Your task to perform on an android device: Toggle the flashlight Image 0: 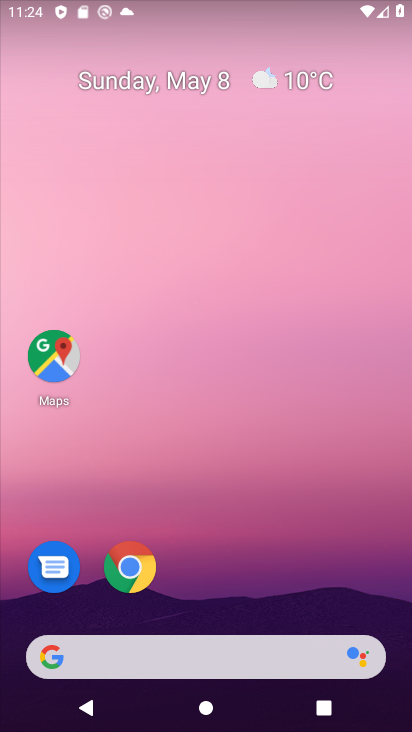
Step 0: drag from (188, 609) to (209, 284)
Your task to perform on an android device: Toggle the flashlight Image 1: 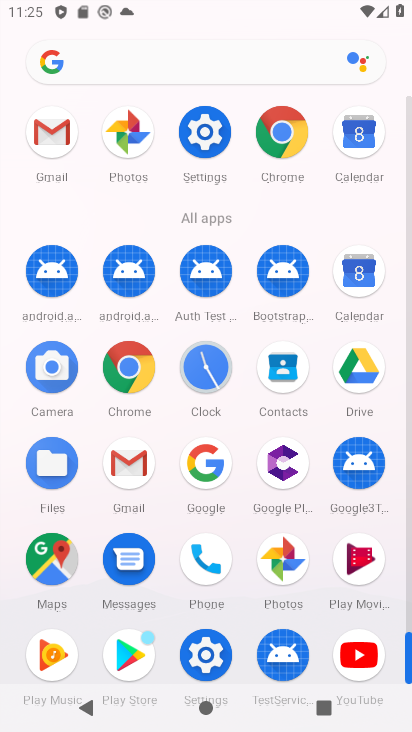
Step 1: task complete